Your task to perform on an android device: Open Chrome and go to settings Image 0: 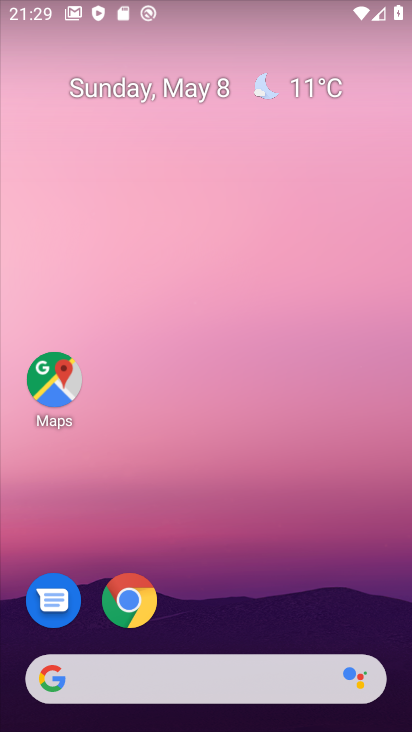
Step 0: click (126, 596)
Your task to perform on an android device: Open Chrome and go to settings Image 1: 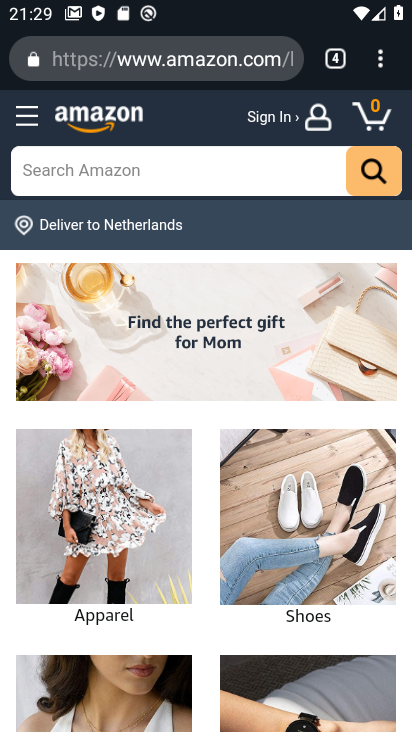
Step 1: click (378, 41)
Your task to perform on an android device: Open Chrome and go to settings Image 2: 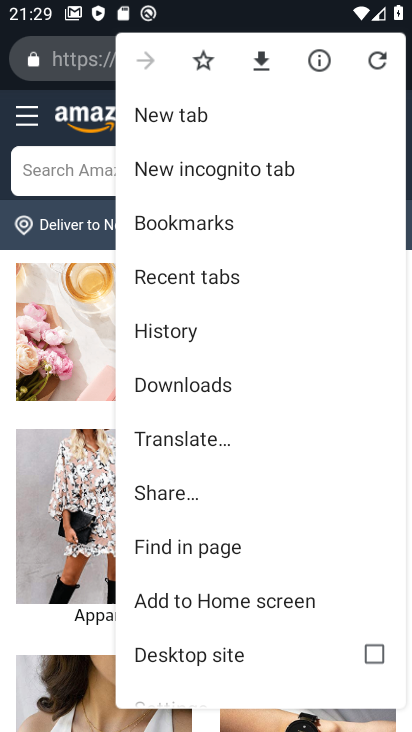
Step 2: click (266, 170)
Your task to perform on an android device: Open Chrome and go to settings Image 3: 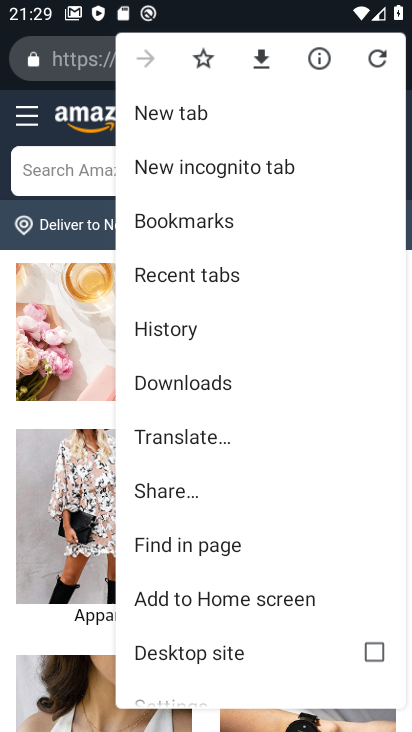
Step 3: drag from (189, 668) to (225, 190)
Your task to perform on an android device: Open Chrome and go to settings Image 4: 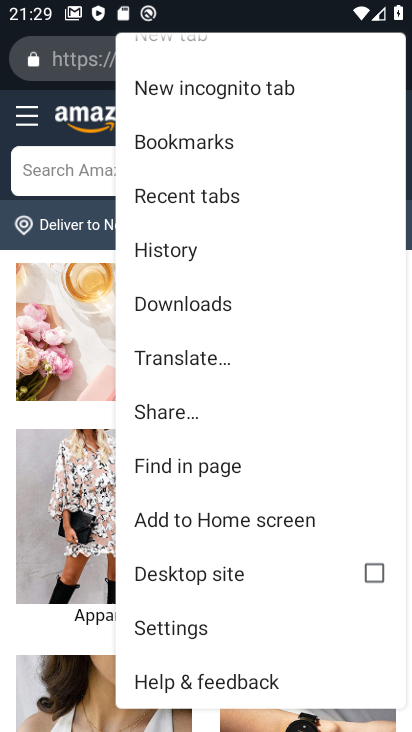
Step 4: click (234, 643)
Your task to perform on an android device: Open Chrome and go to settings Image 5: 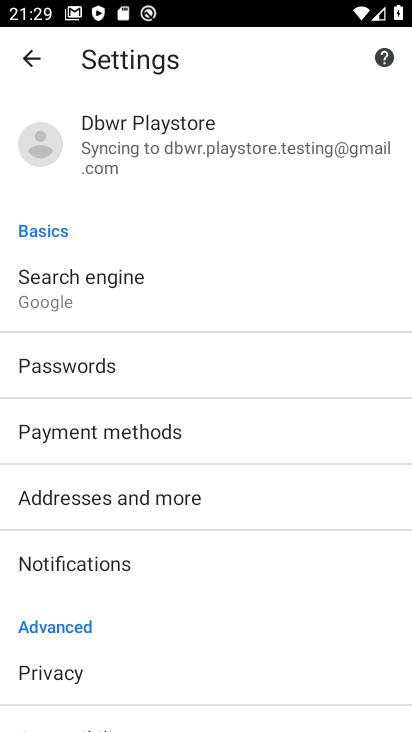
Step 5: task complete